Your task to perform on an android device: Show me popular videos on Youtube Image 0: 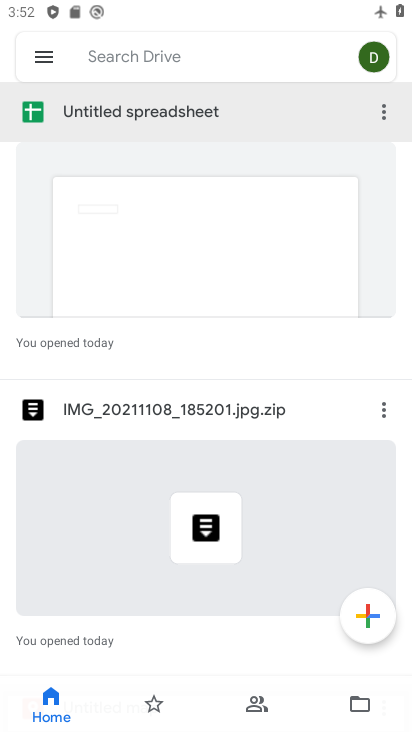
Step 0: press home button
Your task to perform on an android device: Show me popular videos on Youtube Image 1: 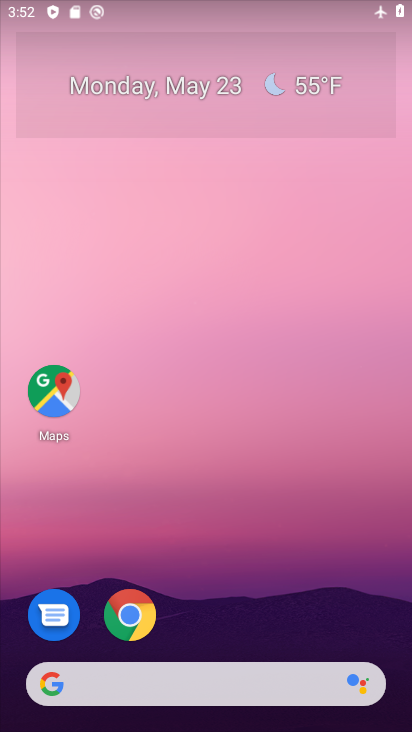
Step 1: drag from (386, 645) to (368, 121)
Your task to perform on an android device: Show me popular videos on Youtube Image 2: 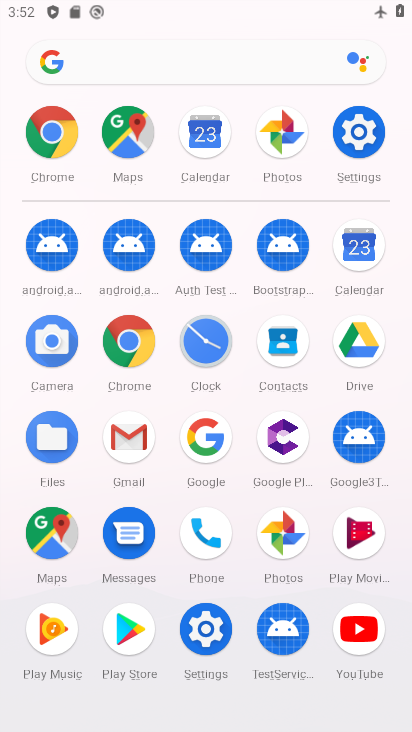
Step 2: click (369, 637)
Your task to perform on an android device: Show me popular videos on Youtube Image 3: 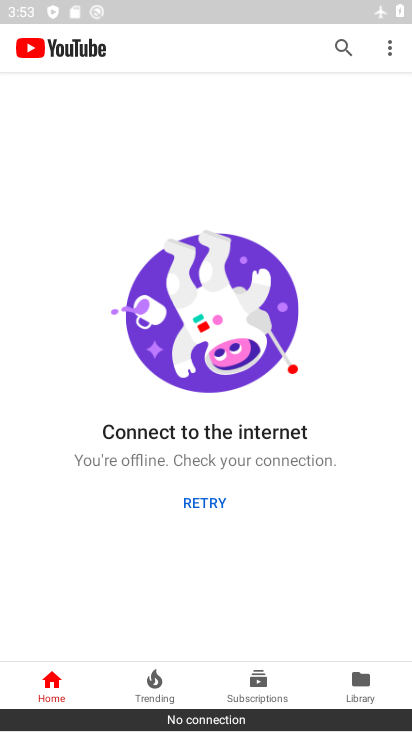
Step 3: task complete